Your task to perform on an android device: turn on notifications settings in the gmail app Image 0: 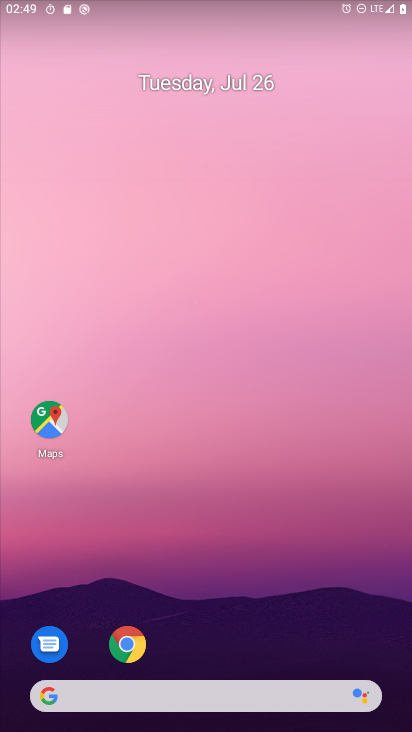
Step 0: drag from (273, 577) to (264, 5)
Your task to perform on an android device: turn on notifications settings in the gmail app Image 1: 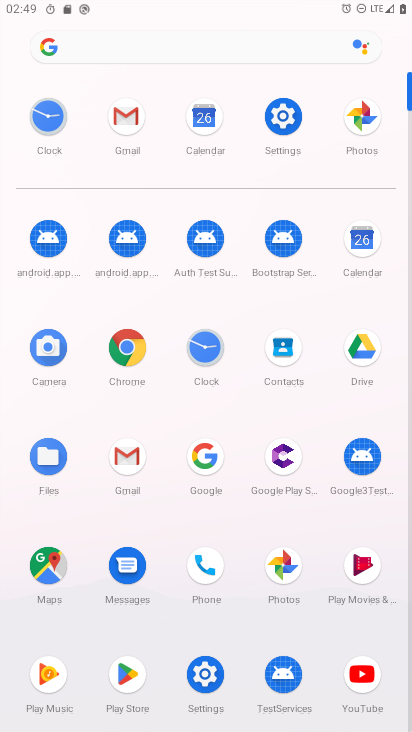
Step 1: click (108, 105)
Your task to perform on an android device: turn on notifications settings in the gmail app Image 2: 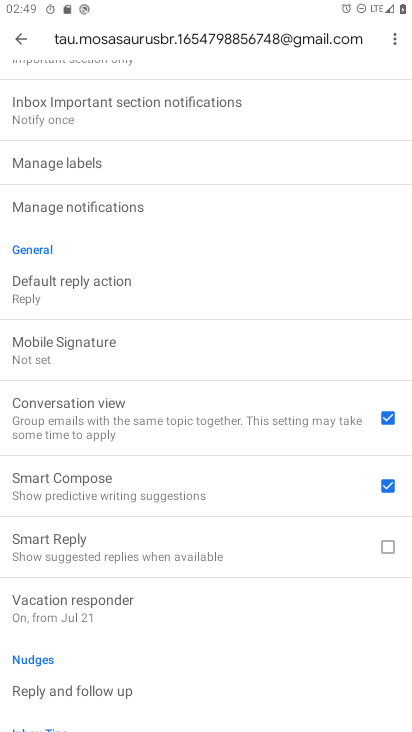
Step 2: click (21, 40)
Your task to perform on an android device: turn on notifications settings in the gmail app Image 3: 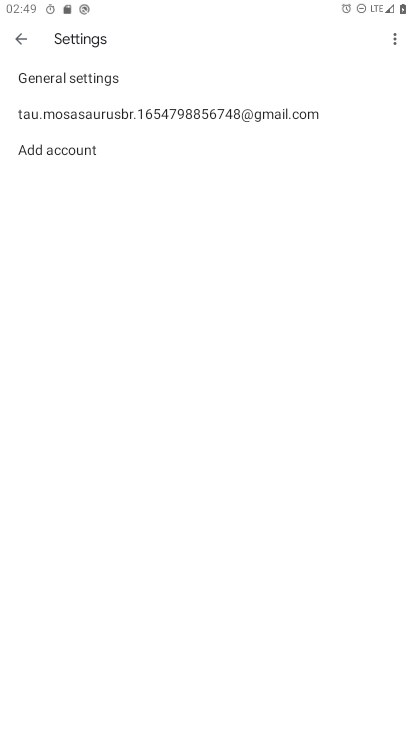
Step 3: click (42, 77)
Your task to perform on an android device: turn on notifications settings in the gmail app Image 4: 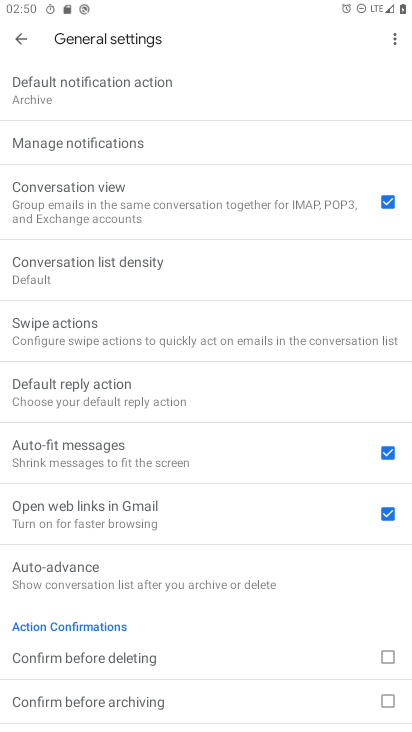
Step 4: click (52, 141)
Your task to perform on an android device: turn on notifications settings in the gmail app Image 5: 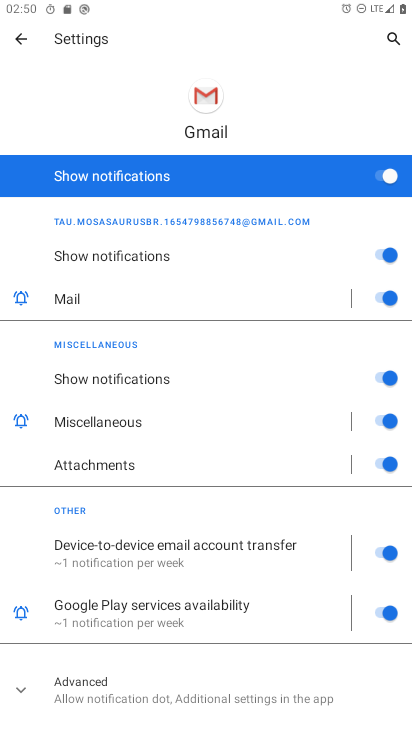
Step 5: task complete